Your task to perform on an android device: turn on location history Image 0: 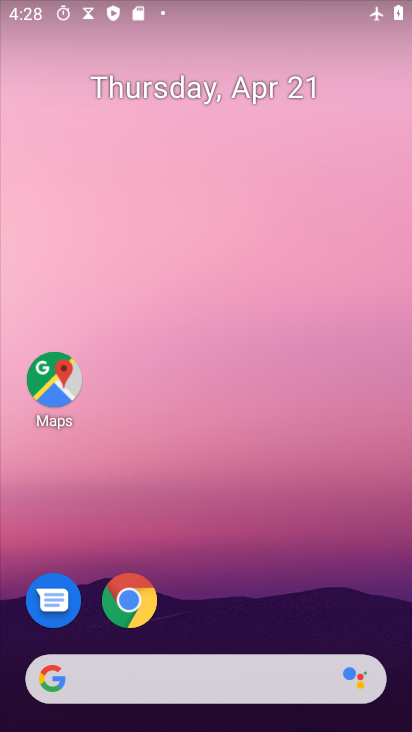
Step 0: drag from (227, 601) to (217, 89)
Your task to perform on an android device: turn on location history Image 1: 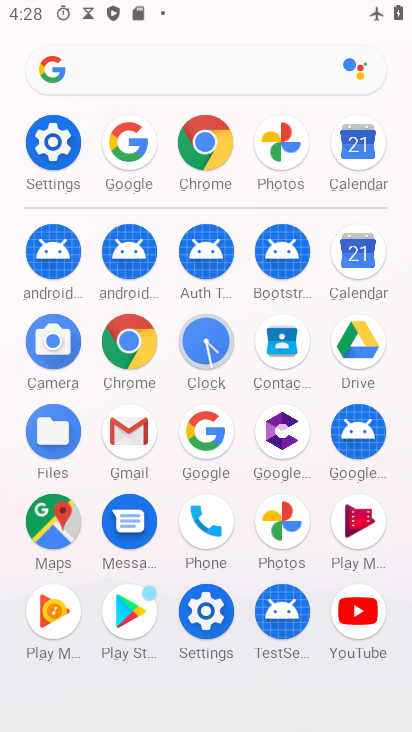
Step 1: click (53, 144)
Your task to perform on an android device: turn on location history Image 2: 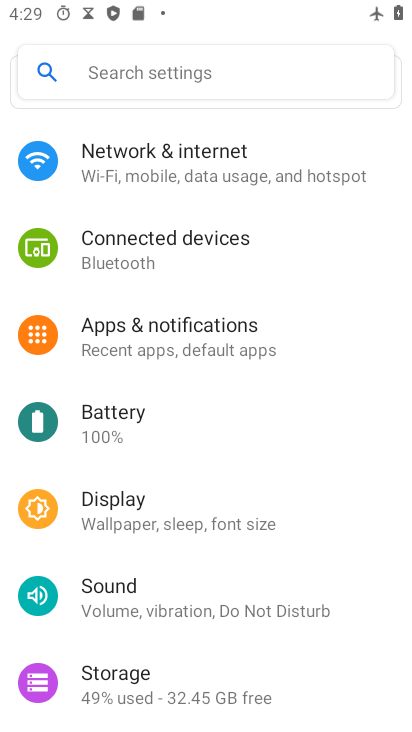
Step 2: drag from (180, 581) to (201, 427)
Your task to perform on an android device: turn on location history Image 3: 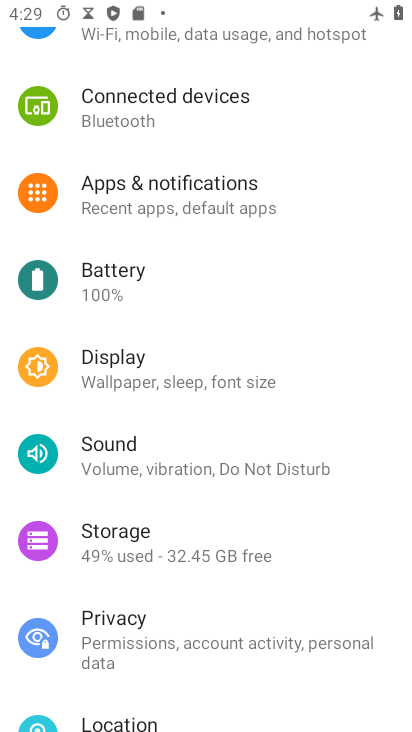
Step 3: drag from (183, 534) to (197, 364)
Your task to perform on an android device: turn on location history Image 4: 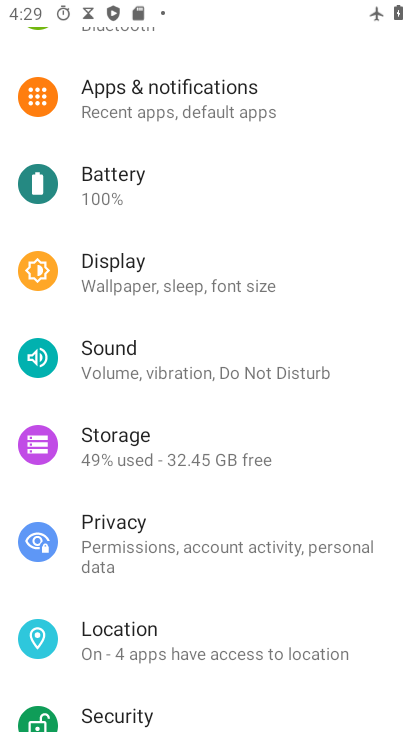
Step 4: drag from (193, 601) to (255, 455)
Your task to perform on an android device: turn on location history Image 5: 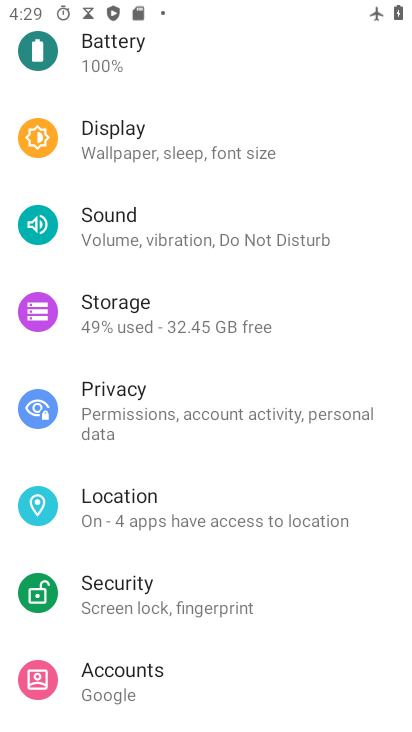
Step 5: click (149, 518)
Your task to perform on an android device: turn on location history Image 6: 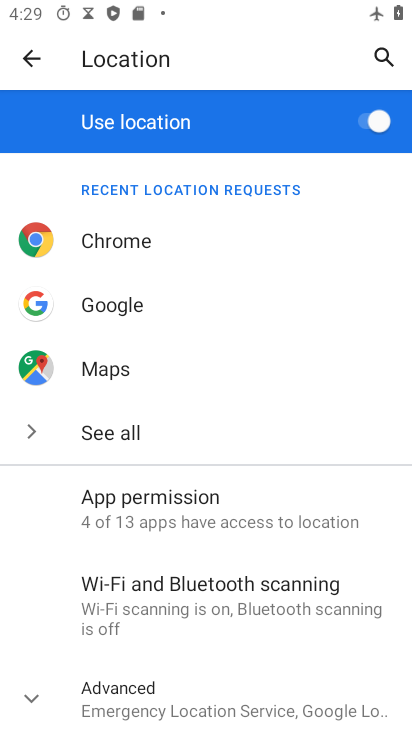
Step 6: drag from (204, 645) to (278, 460)
Your task to perform on an android device: turn on location history Image 7: 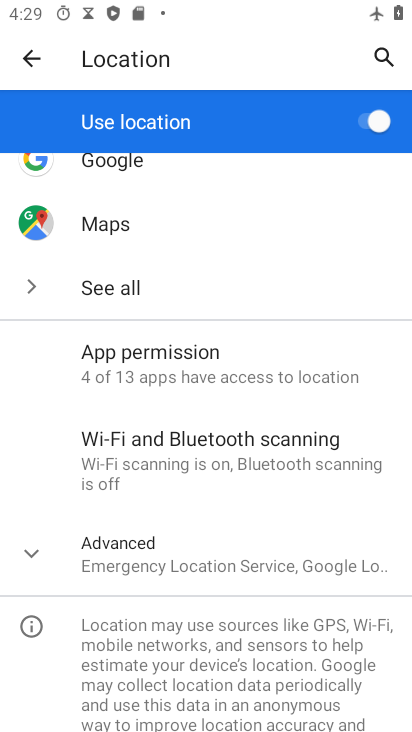
Step 7: click (255, 556)
Your task to perform on an android device: turn on location history Image 8: 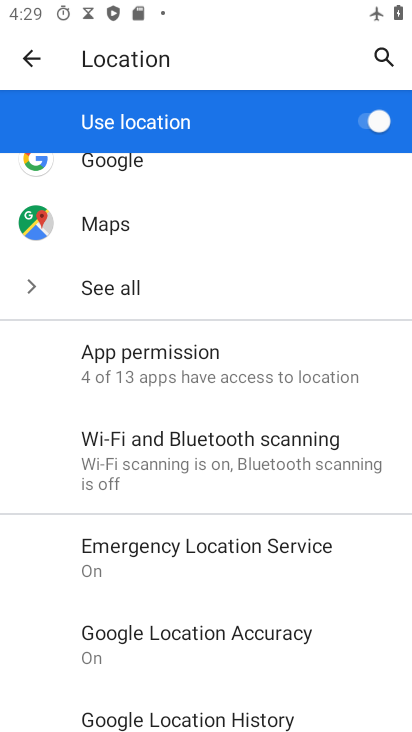
Step 8: task complete